Your task to perform on an android device: Open location settings Image 0: 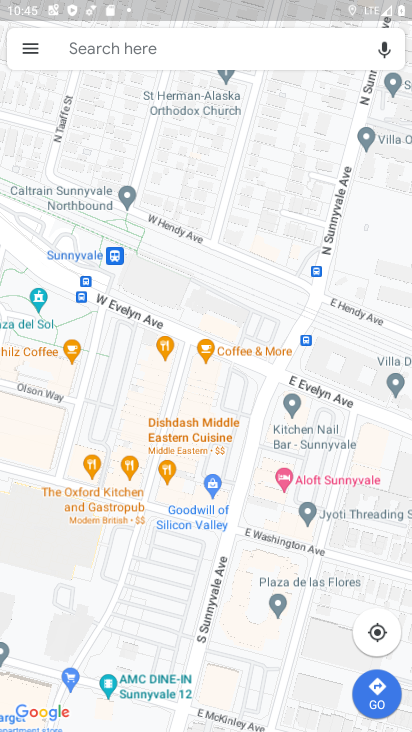
Step 0: press home button
Your task to perform on an android device: Open location settings Image 1: 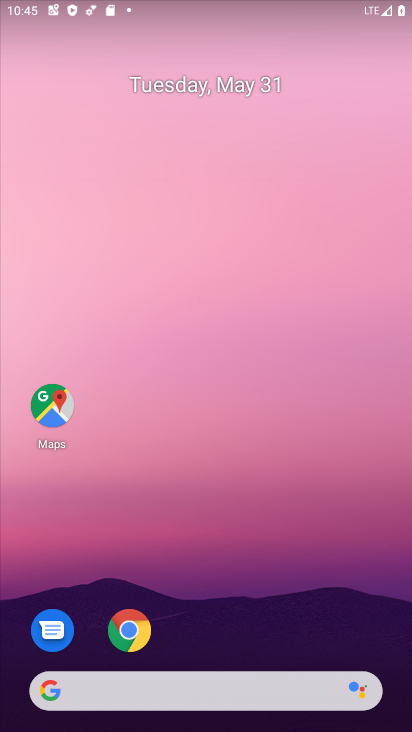
Step 1: drag from (259, 590) to (274, 76)
Your task to perform on an android device: Open location settings Image 2: 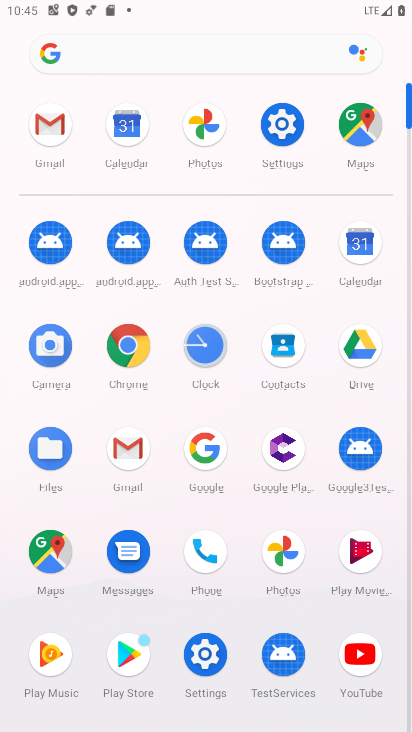
Step 2: click (279, 124)
Your task to perform on an android device: Open location settings Image 3: 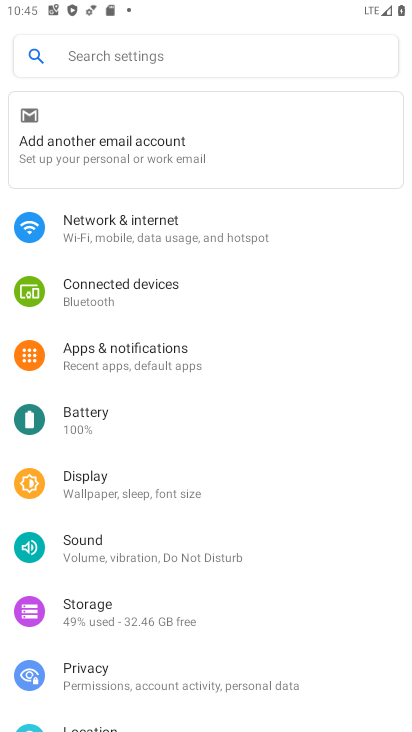
Step 3: drag from (365, 672) to (369, 391)
Your task to perform on an android device: Open location settings Image 4: 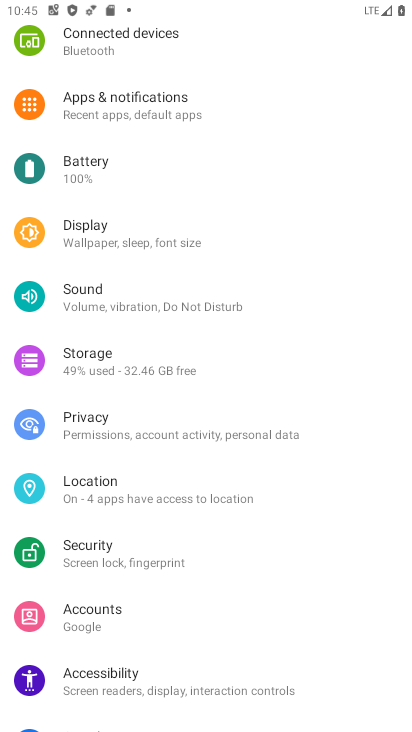
Step 4: click (225, 486)
Your task to perform on an android device: Open location settings Image 5: 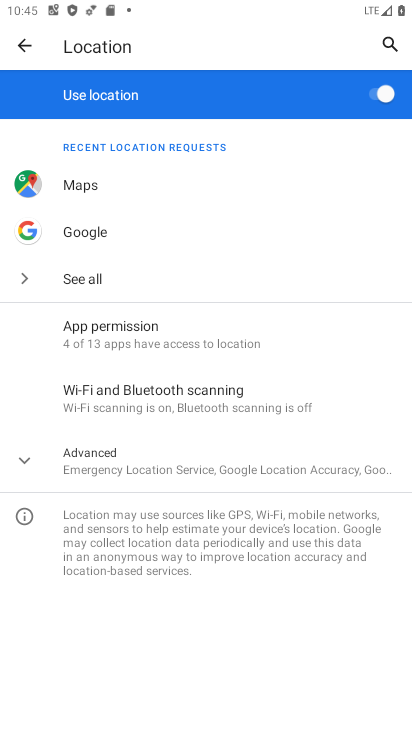
Step 5: task complete